Your task to perform on an android device: star an email in the gmail app Image 0: 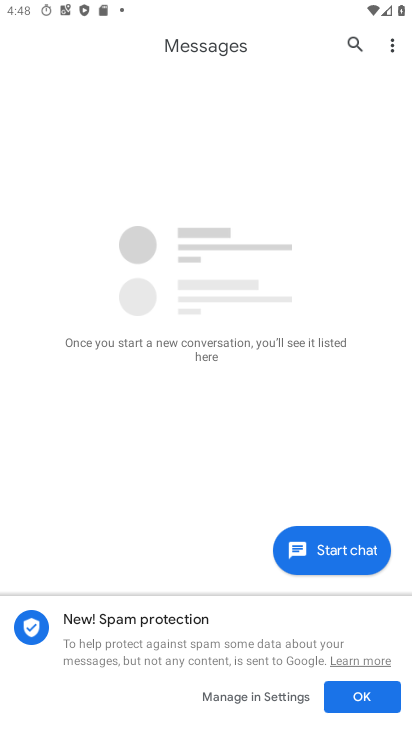
Step 0: press back button
Your task to perform on an android device: star an email in the gmail app Image 1: 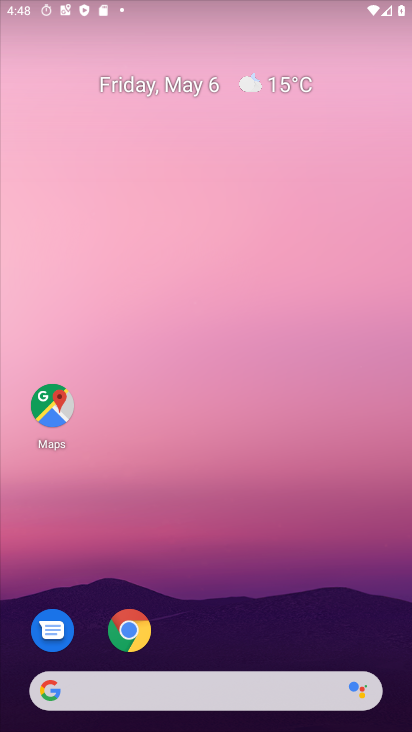
Step 1: drag from (198, 577) to (324, 91)
Your task to perform on an android device: star an email in the gmail app Image 2: 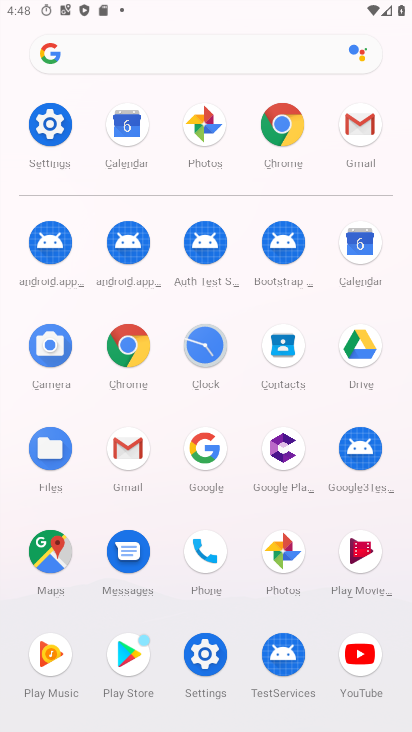
Step 2: click (365, 124)
Your task to perform on an android device: star an email in the gmail app Image 3: 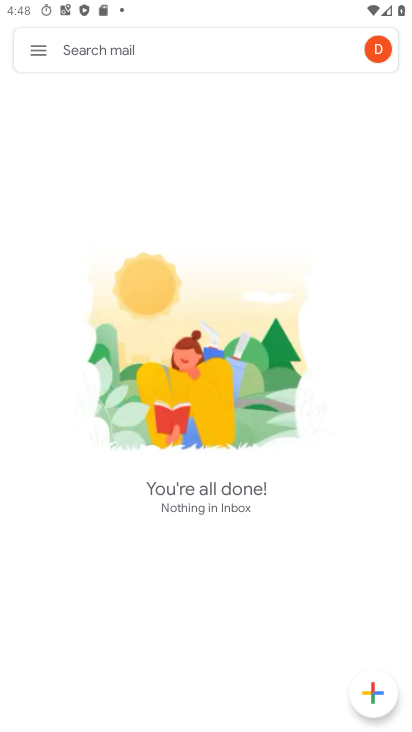
Step 3: click (39, 49)
Your task to perform on an android device: star an email in the gmail app Image 4: 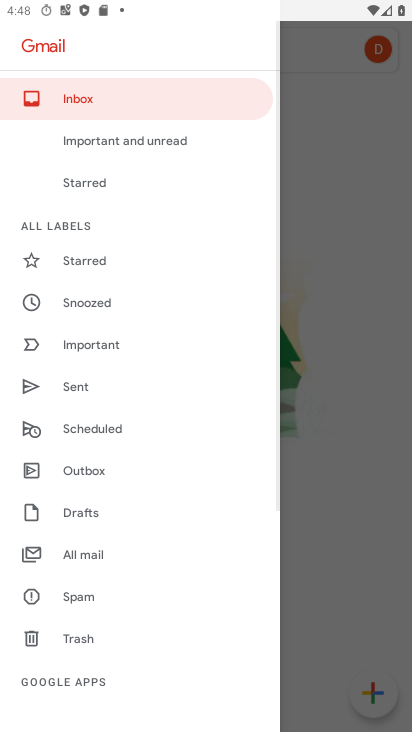
Step 4: click (91, 556)
Your task to perform on an android device: star an email in the gmail app Image 5: 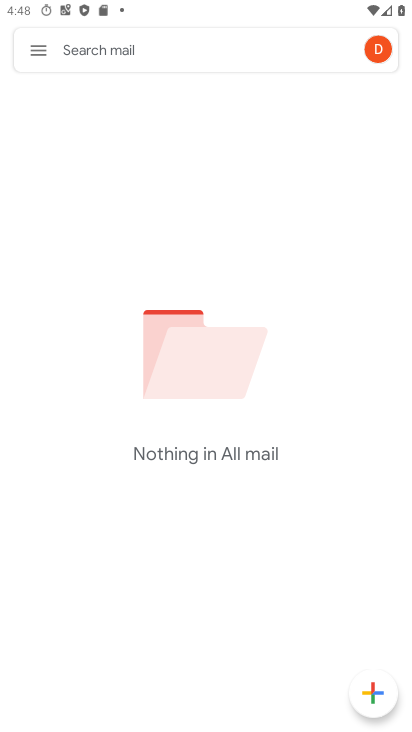
Step 5: task complete